Your task to perform on an android device: turn off wifi Image 0: 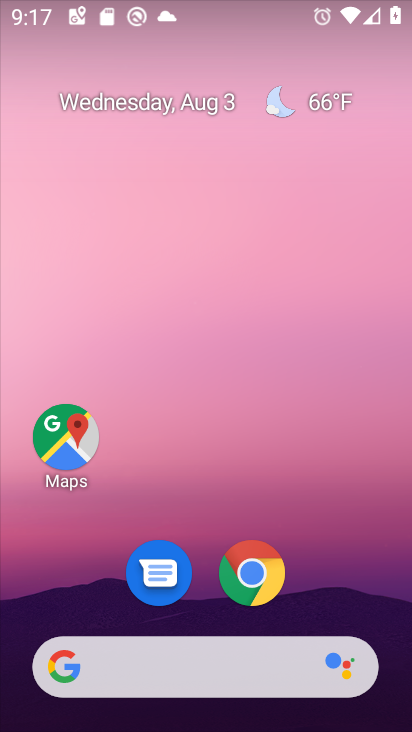
Step 0: drag from (345, 606) to (348, 80)
Your task to perform on an android device: turn off wifi Image 1: 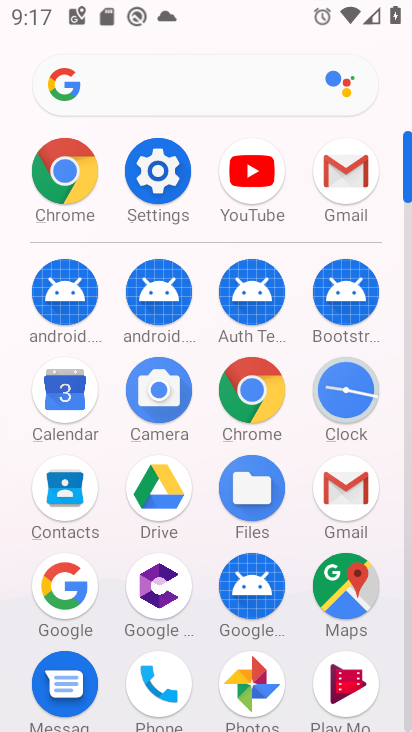
Step 1: click (152, 176)
Your task to perform on an android device: turn off wifi Image 2: 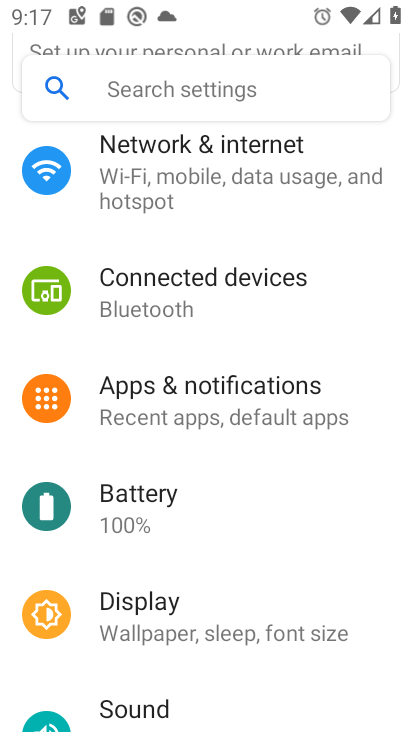
Step 2: click (153, 175)
Your task to perform on an android device: turn off wifi Image 3: 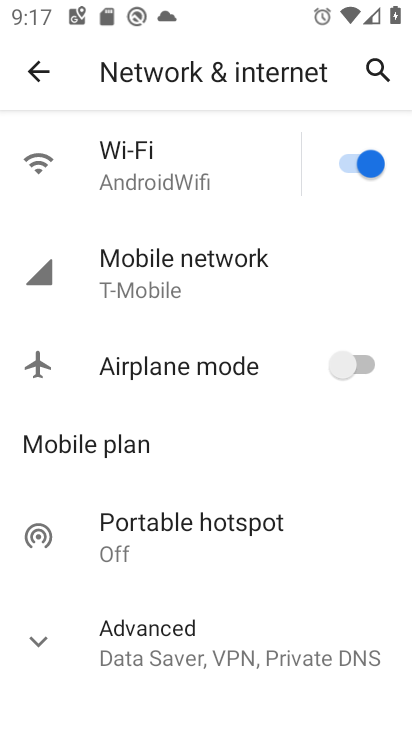
Step 3: click (381, 160)
Your task to perform on an android device: turn off wifi Image 4: 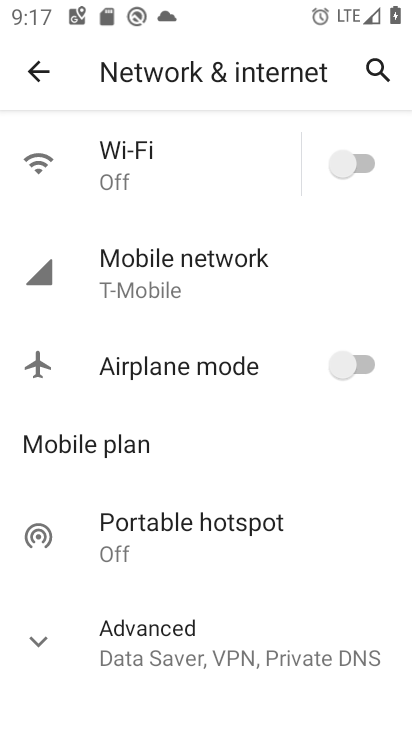
Step 4: task complete